Your task to perform on an android device: star an email in the gmail app Image 0: 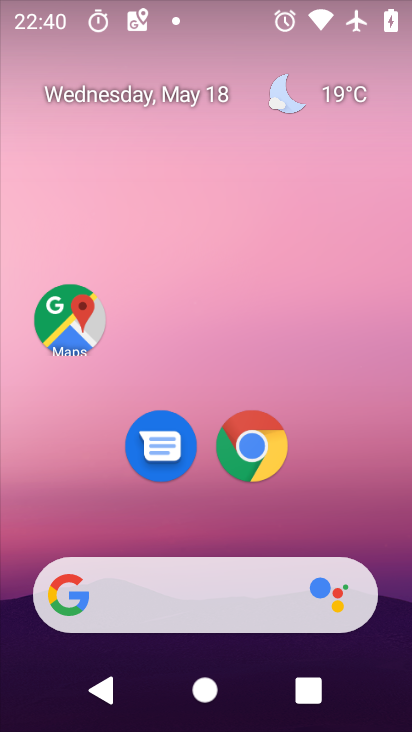
Step 0: press home button
Your task to perform on an android device: star an email in the gmail app Image 1: 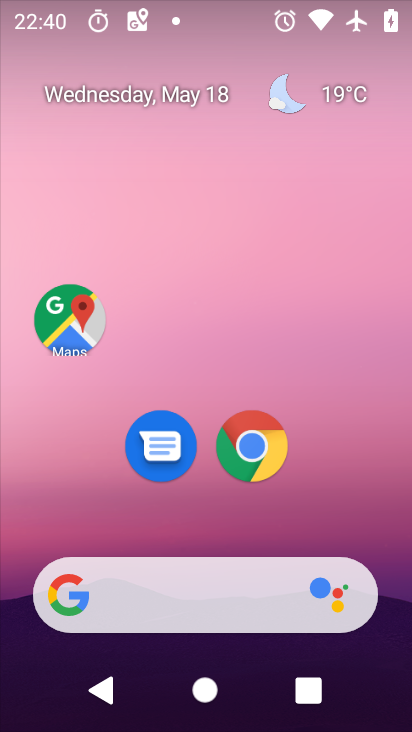
Step 1: drag from (173, 570) to (284, 200)
Your task to perform on an android device: star an email in the gmail app Image 2: 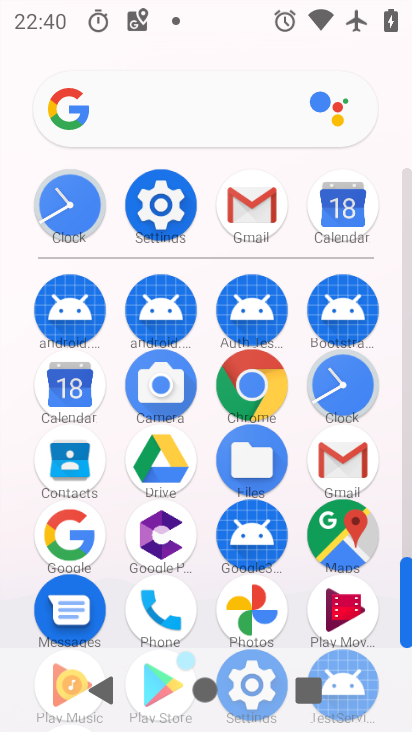
Step 2: click (260, 220)
Your task to perform on an android device: star an email in the gmail app Image 3: 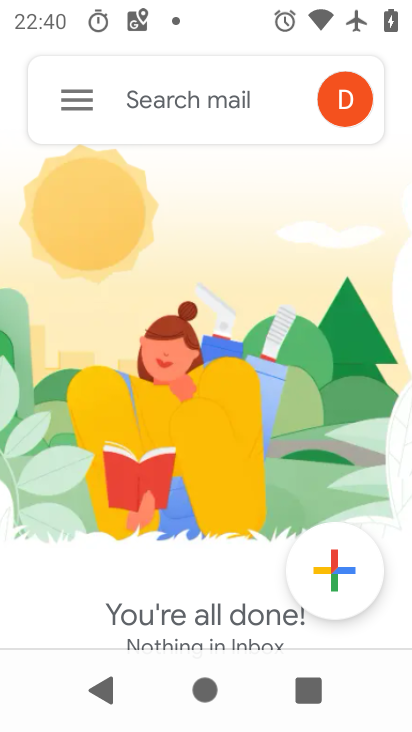
Step 3: task complete